Your task to perform on an android device: Open CNN.com Image 0: 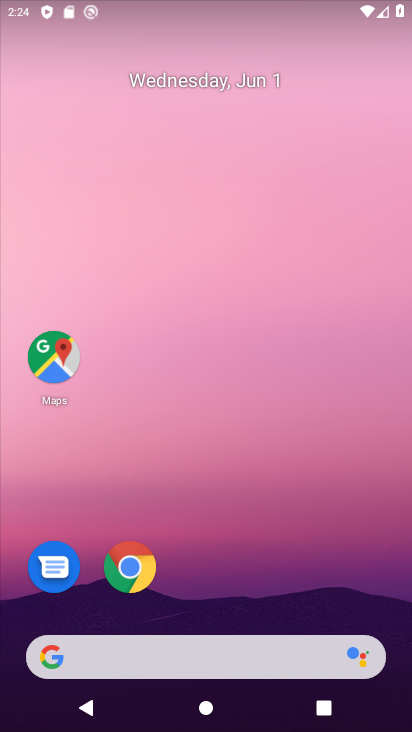
Step 0: click (186, 648)
Your task to perform on an android device: Open CNN.com Image 1: 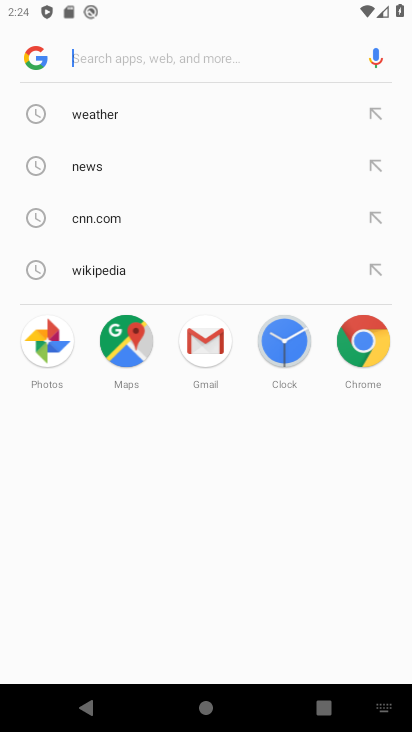
Step 1: type "CNN>com"
Your task to perform on an android device: Open CNN.com Image 2: 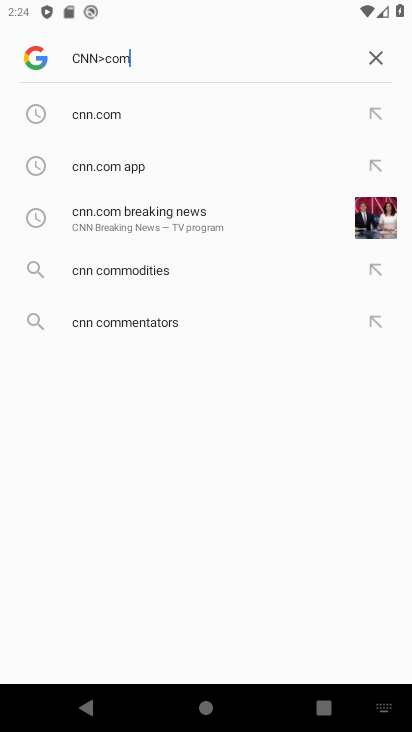
Step 2: click (164, 110)
Your task to perform on an android device: Open CNN.com Image 3: 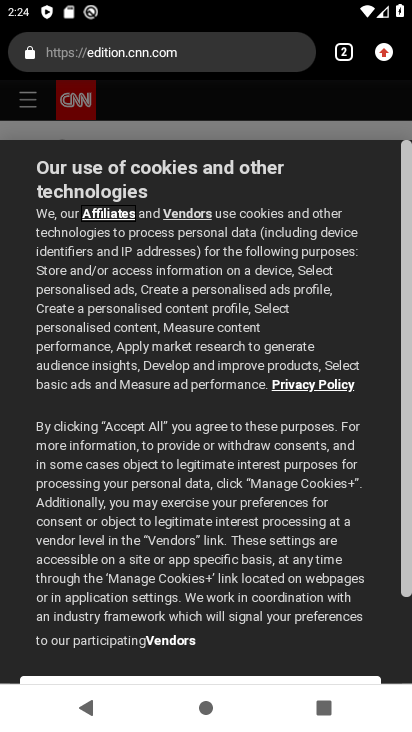
Step 3: drag from (266, 518) to (339, 240)
Your task to perform on an android device: Open CNN.com Image 4: 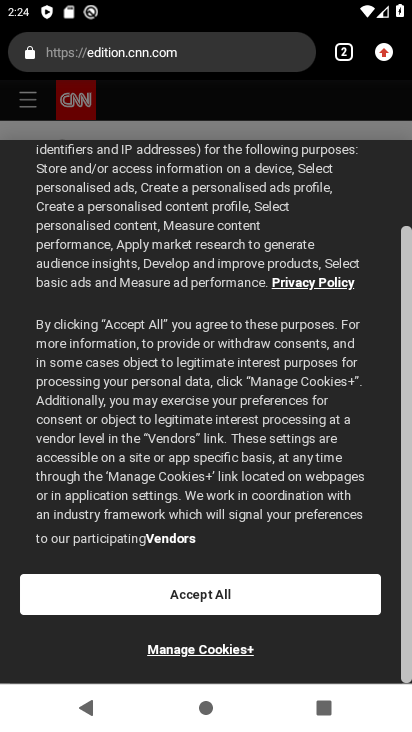
Step 4: click (268, 602)
Your task to perform on an android device: Open CNN.com Image 5: 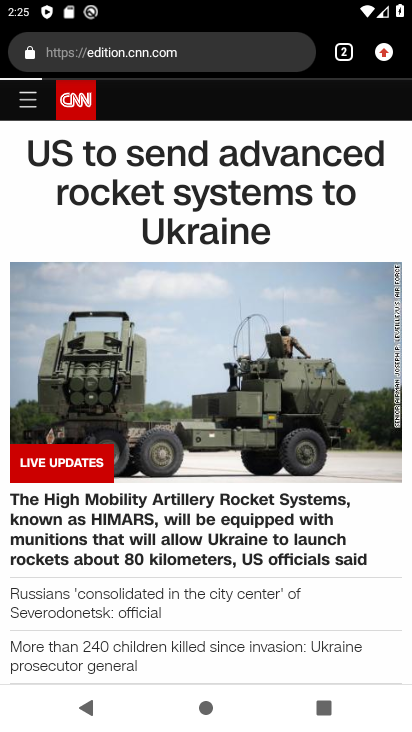
Step 5: task complete